Your task to perform on an android device: Open Google Maps and go to "Timeline" Image 0: 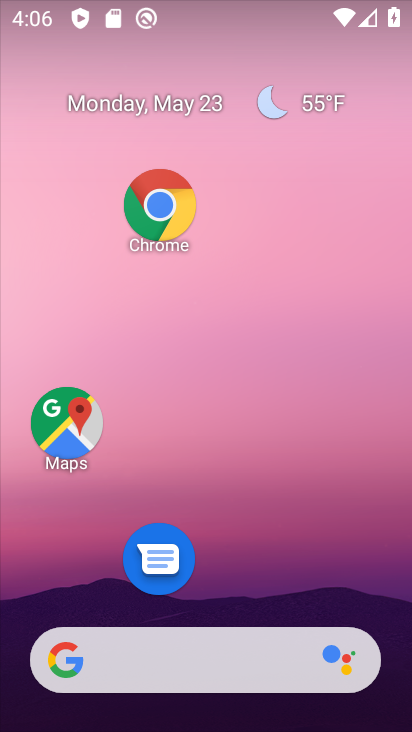
Step 0: click (196, 119)
Your task to perform on an android device: Open Google Maps and go to "Timeline" Image 1: 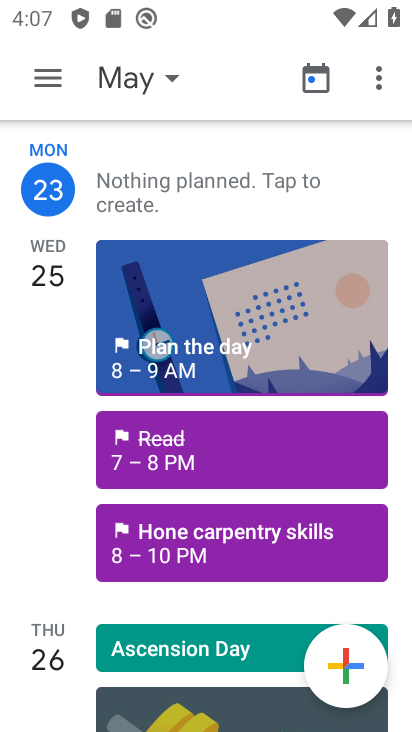
Step 1: drag from (246, 514) to (208, 144)
Your task to perform on an android device: Open Google Maps and go to "Timeline" Image 2: 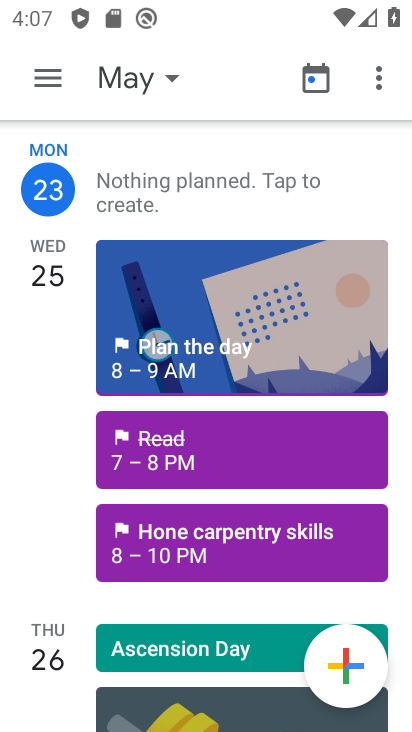
Step 2: drag from (241, 466) to (231, 44)
Your task to perform on an android device: Open Google Maps and go to "Timeline" Image 3: 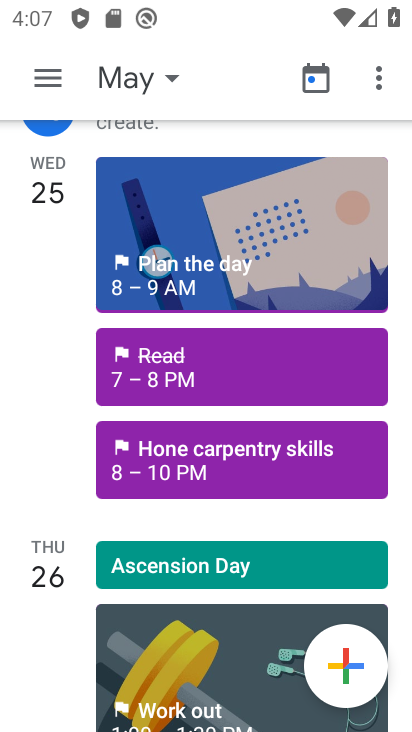
Step 3: press back button
Your task to perform on an android device: Open Google Maps and go to "Timeline" Image 4: 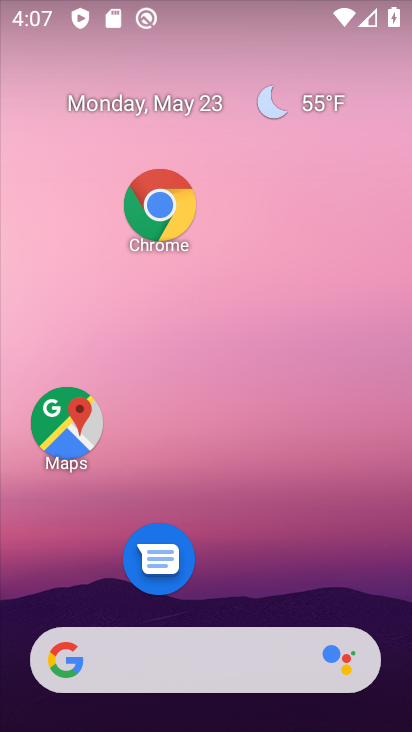
Step 4: drag from (260, 642) to (215, 1)
Your task to perform on an android device: Open Google Maps and go to "Timeline" Image 5: 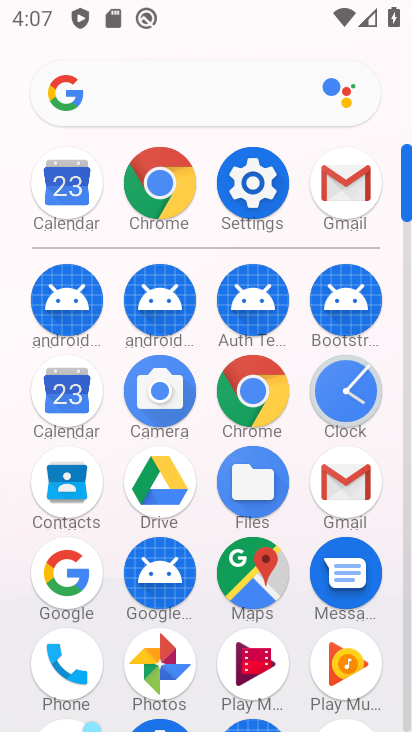
Step 5: drag from (290, 731) to (247, 233)
Your task to perform on an android device: Open Google Maps and go to "Timeline" Image 6: 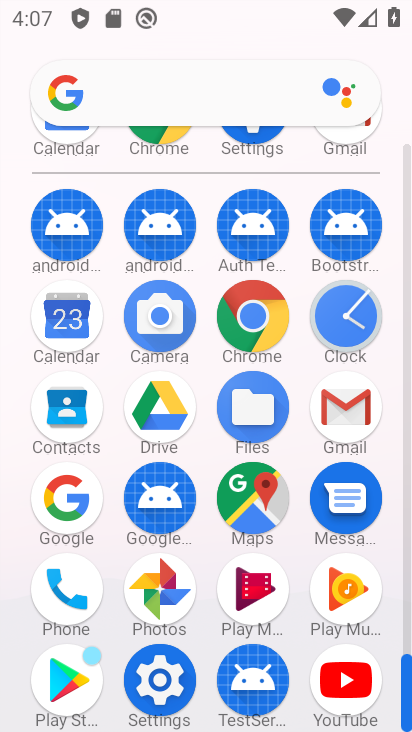
Step 6: click (245, 492)
Your task to perform on an android device: Open Google Maps and go to "Timeline" Image 7: 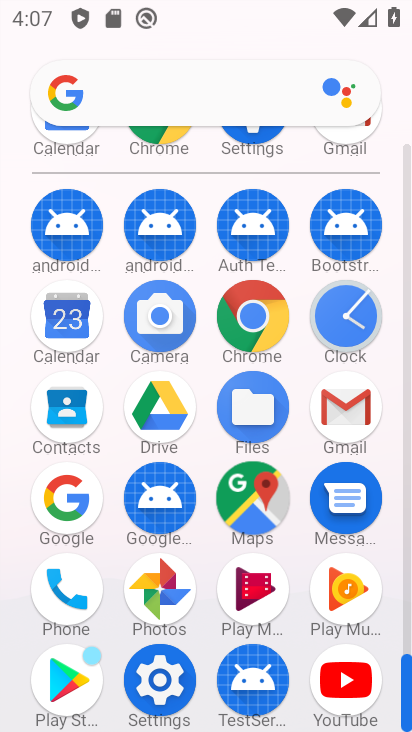
Step 7: click (245, 498)
Your task to perform on an android device: Open Google Maps and go to "Timeline" Image 8: 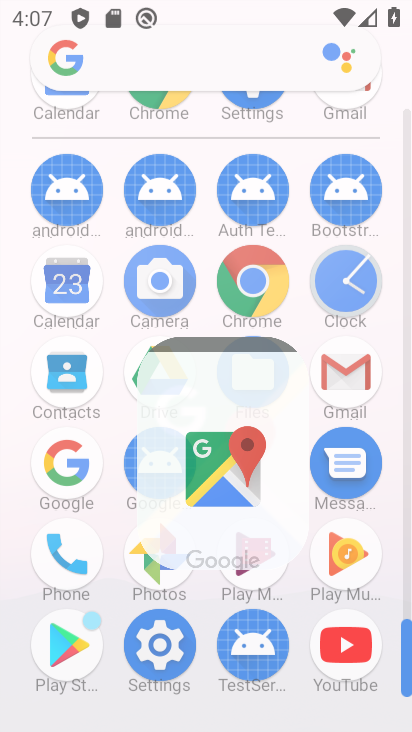
Step 8: click (245, 498)
Your task to perform on an android device: Open Google Maps and go to "Timeline" Image 9: 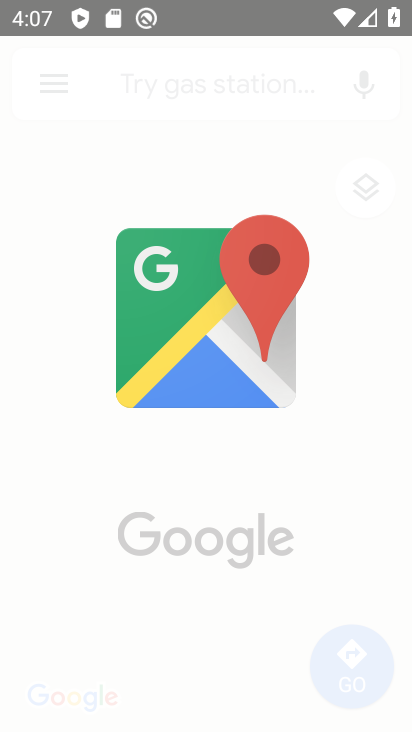
Step 9: click (254, 487)
Your task to perform on an android device: Open Google Maps and go to "Timeline" Image 10: 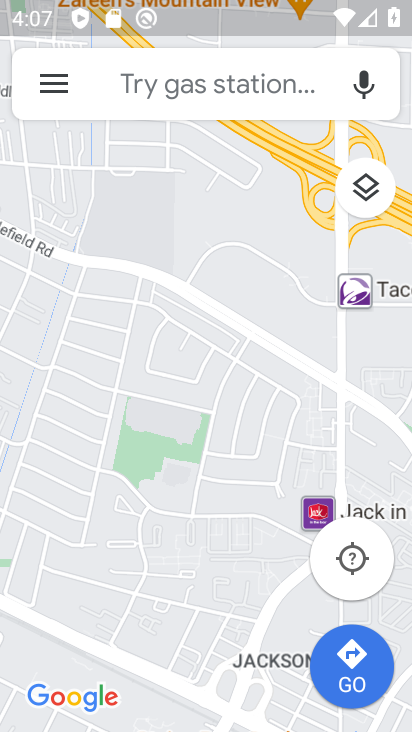
Step 10: click (60, 76)
Your task to perform on an android device: Open Google Maps and go to "Timeline" Image 11: 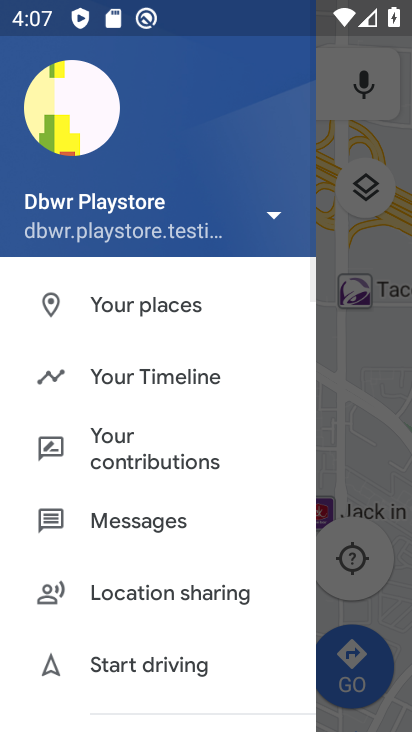
Step 11: click (160, 366)
Your task to perform on an android device: Open Google Maps and go to "Timeline" Image 12: 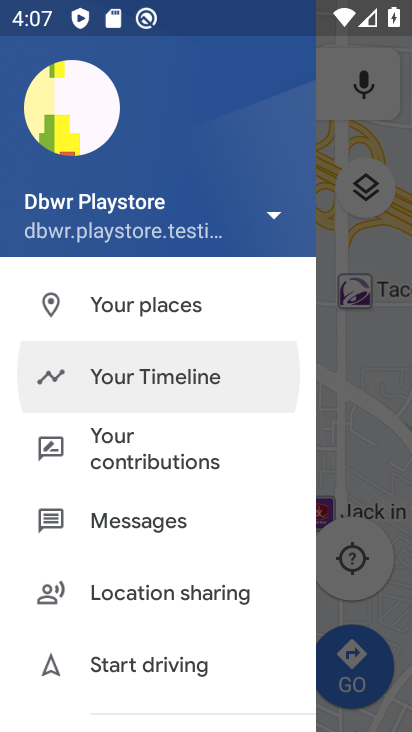
Step 12: click (160, 366)
Your task to perform on an android device: Open Google Maps and go to "Timeline" Image 13: 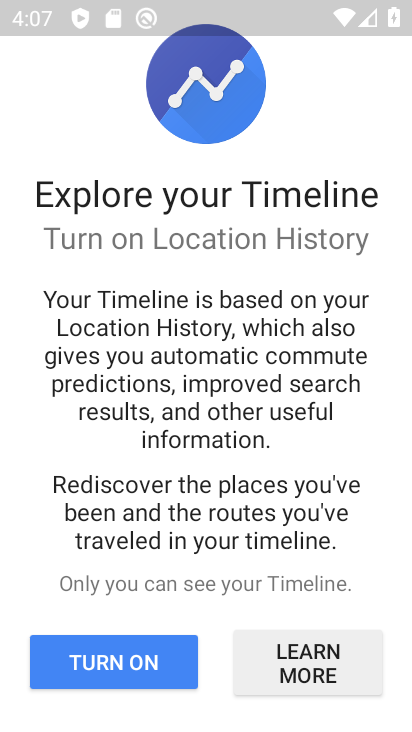
Step 13: click (112, 658)
Your task to perform on an android device: Open Google Maps and go to "Timeline" Image 14: 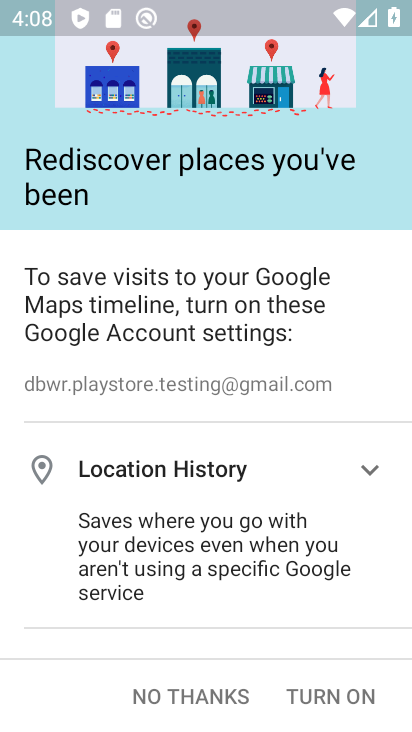
Step 14: task complete